Your task to perform on an android device: Check the weather Image 0: 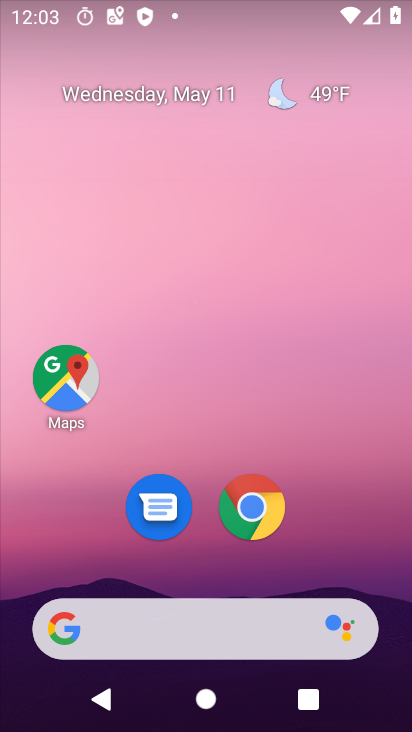
Step 0: drag from (212, 568) to (200, 50)
Your task to perform on an android device: Check the weather Image 1: 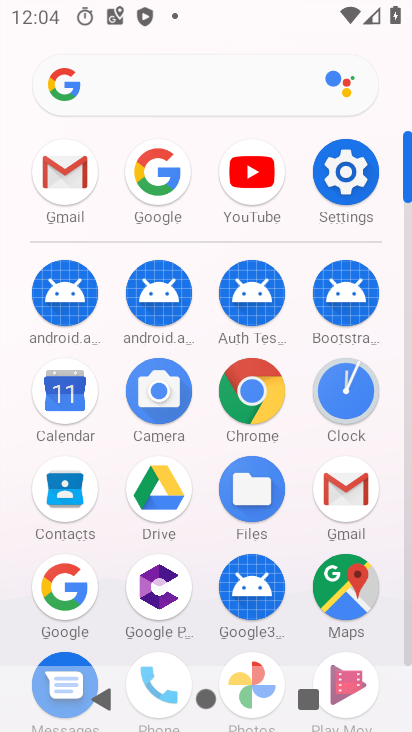
Step 1: click (67, 602)
Your task to perform on an android device: Check the weather Image 2: 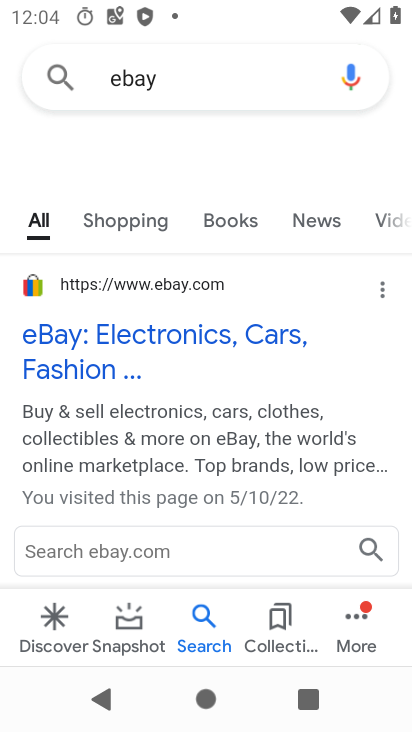
Step 2: click (211, 70)
Your task to perform on an android device: Check the weather Image 3: 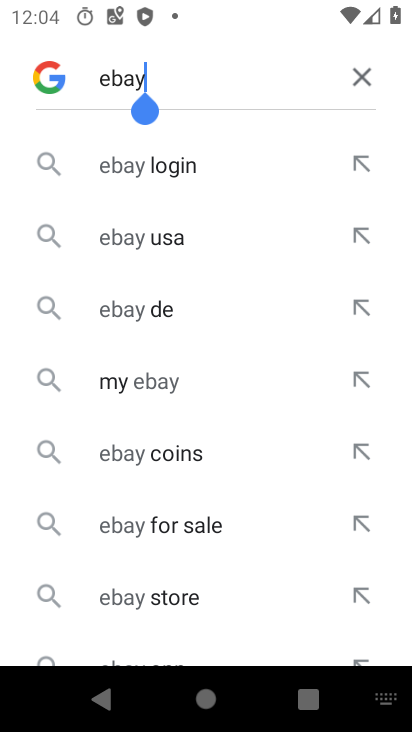
Step 3: click (363, 78)
Your task to perform on an android device: Check the weather Image 4: 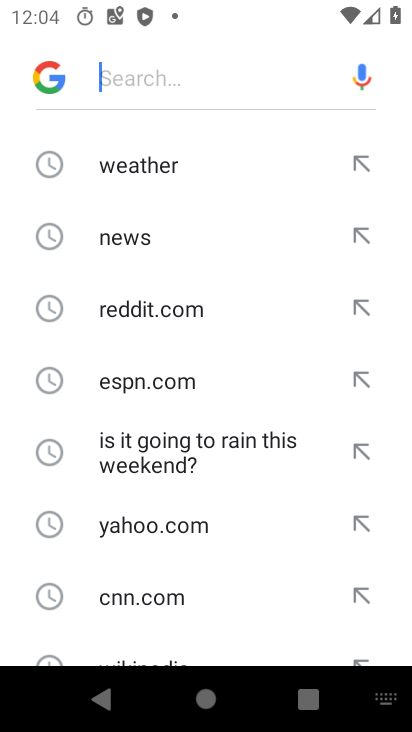
Step 4: click (164, 174)
Your task to perform on an android device: Check the weather Image 5: 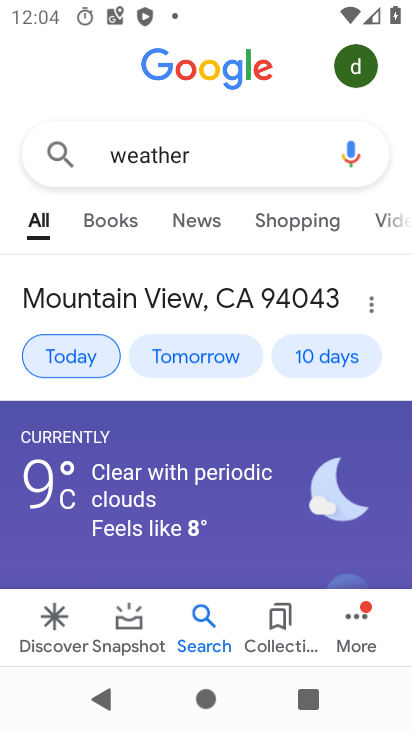
Step 5: task complete